Your task to perform on an android device: Show me popular videos on Youtube Image 0: 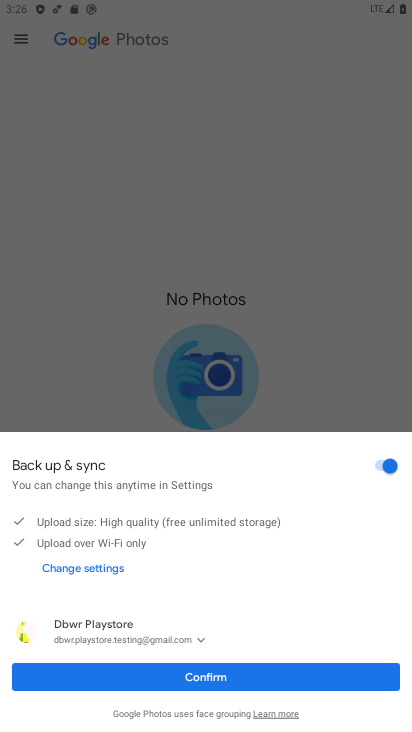
Step 0: press home button
Your task to perform on an android device: Show me popular videos on Youtube Image 1: 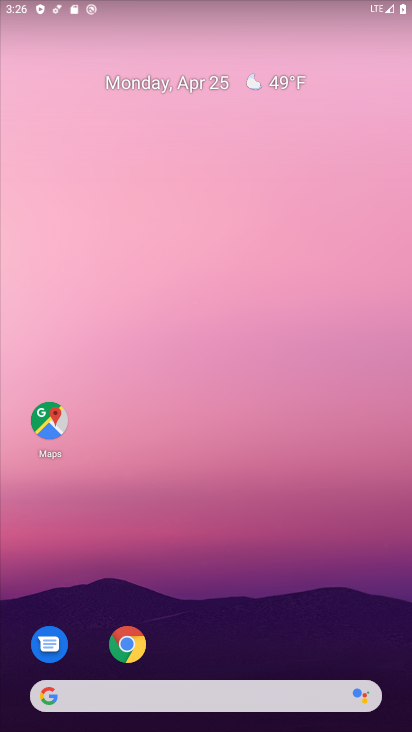
Step 1: drag from (231, 589) to (252, 78)
Your task to perform on an android device: Show me popular videos on Youtube Image 2: 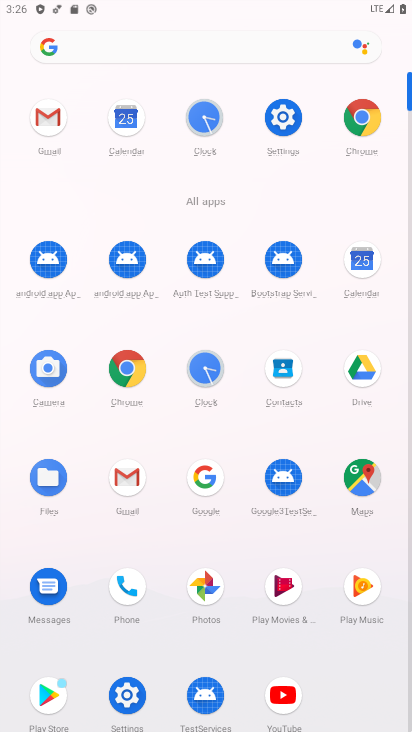
Step 2: click (291, 708)
Your task to perform on an android device: Show me popular videos on Youtube Image 3: 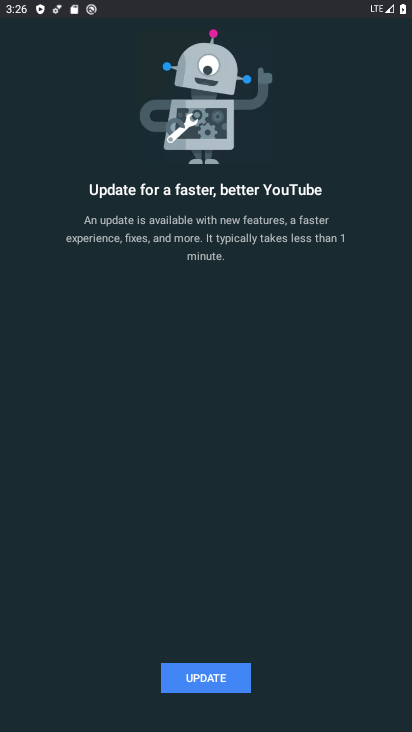
Step 3: click (205, 668)
Your task to perform on an android device: Show me popular videos on Youtube Image 4: 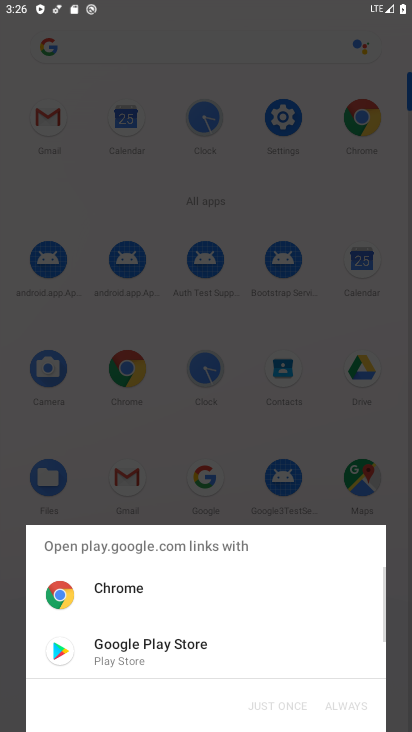
Step 4: click (209, 638)
Your task to perform on an android device: Show me popular videos on Youtube Image 5: 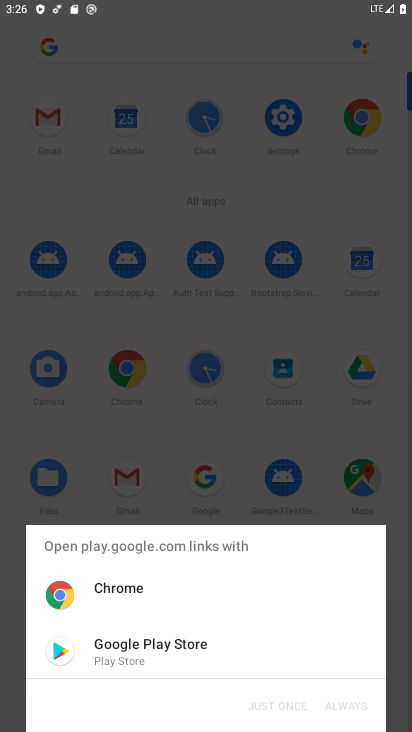
Step 5: click (209, 638)
Your task to perform on an android device: Show me popular videos on Youtube Image 6: 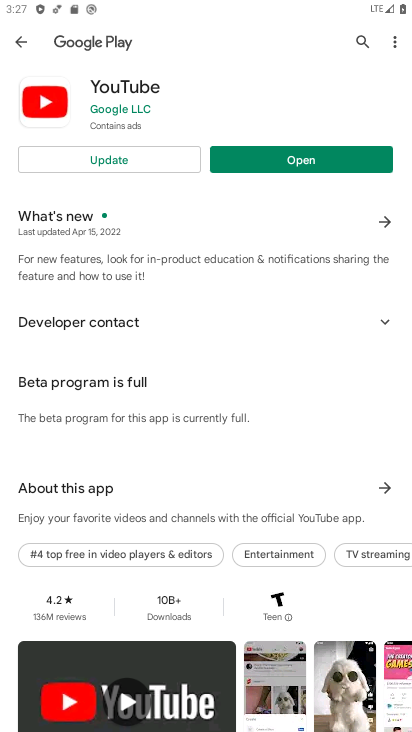
Step 6: click (103, 160)
Your task to perform on an android device: Show me popular videos on Youtube Image 7: 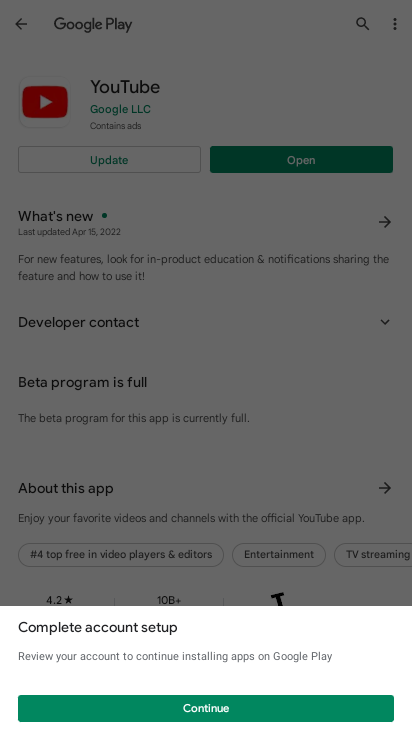
Step 7: click (256, 709)
Your task to perform on an android device: Show me popular videos on Youtube Image 8: 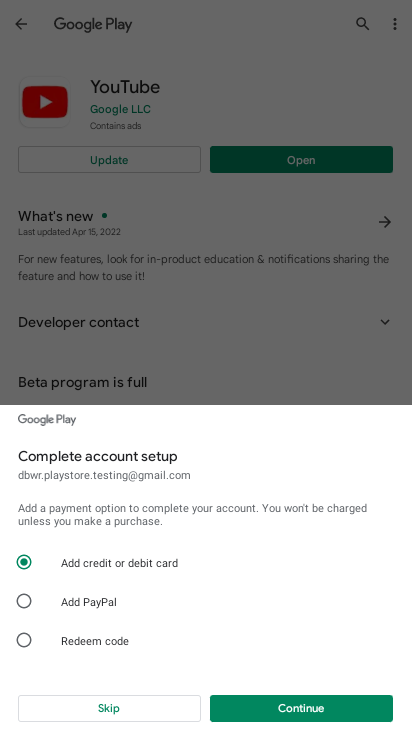
Step 8: click (110, 709)
Your task to perform on an android device: Show me popular videos on Youtube Image 9: 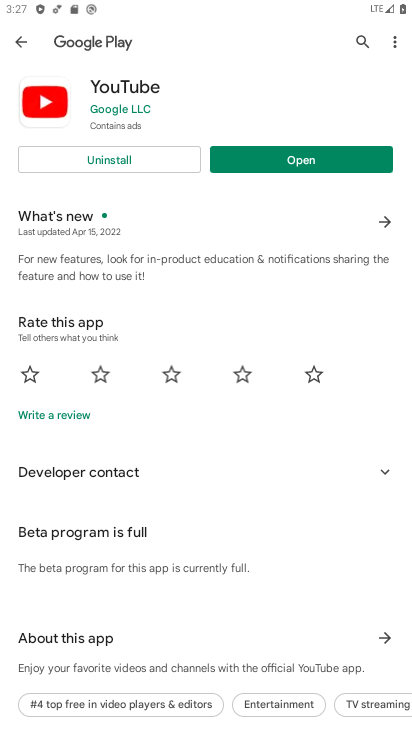
Step 9: click (320, 172)
Your task to perform on an android device: Show me popular videos on Youtube Image 10: 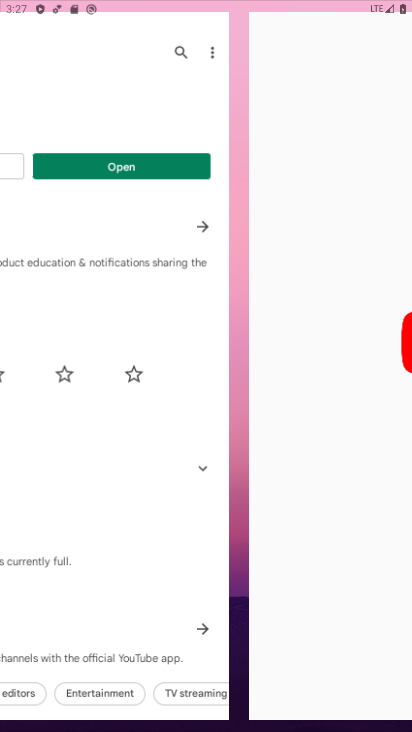
Step 10: click (320, 170)
Your task to perform on an android device: Show me popular videos on Youtube Image 11: 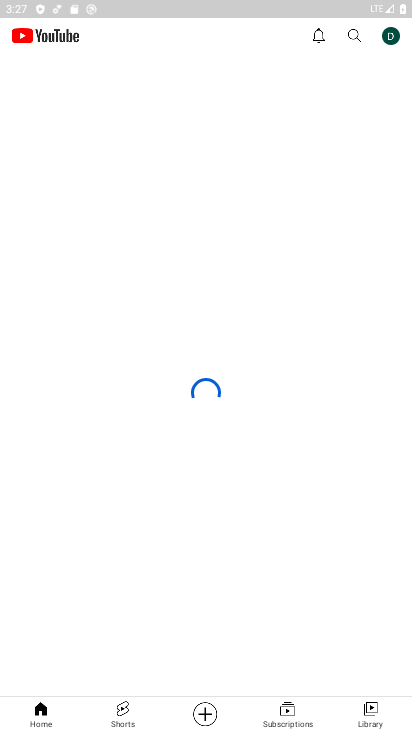
Step 11: click (351, 707)
Your task to perform on an android device: Show me popular videos on Youtube Image 12: 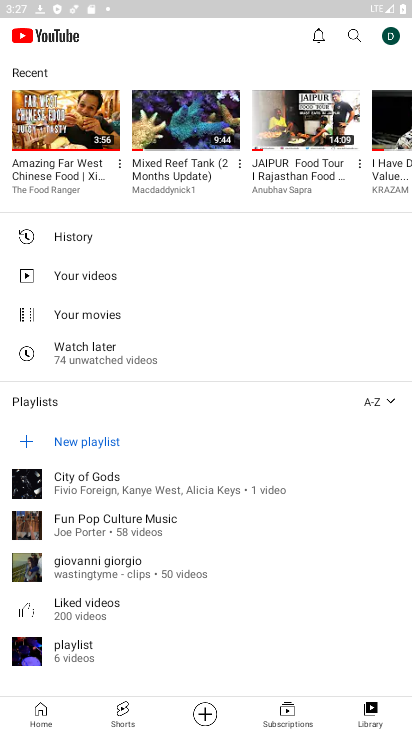
Step 12: task complete